Your task to perform on an android device: Open network settings Image 0: 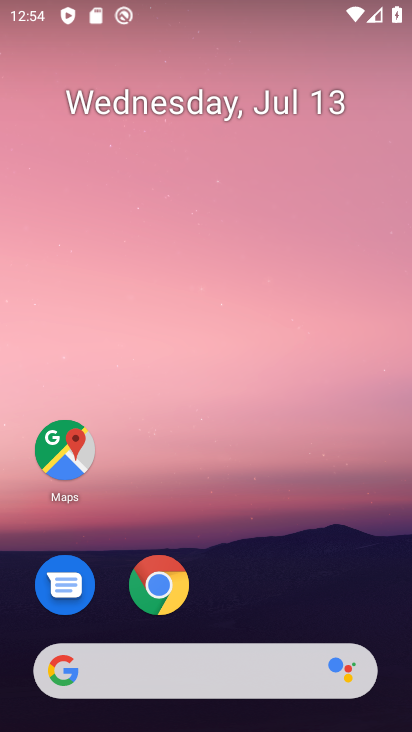
Step 0: drag from (164, 669) to (267, 39)
Your task to perform on an android device: Open network settings Image 1: 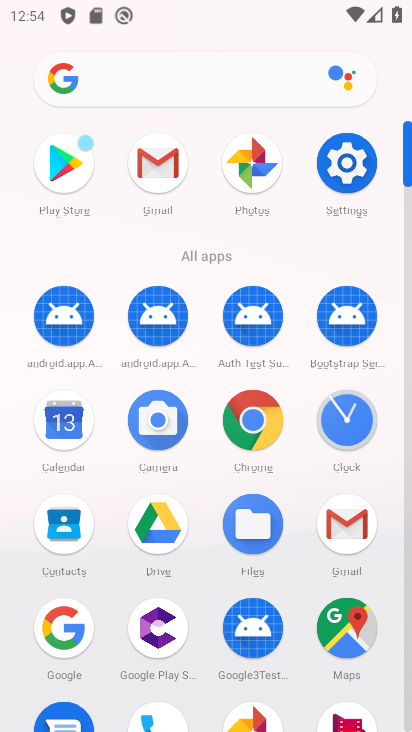
Step 1: click (337, 164)
Your task to perform on an android device: Open network settings Image 2: 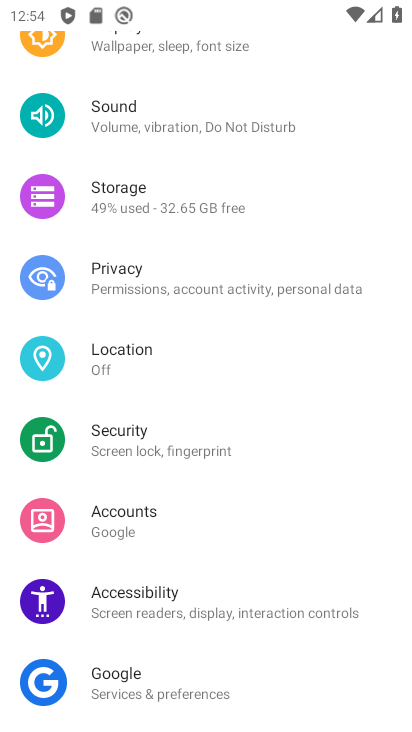
Step 2: drag from (309, 114) to (232, 555)
Your task to perform on an android device: Open network settings Image 3: 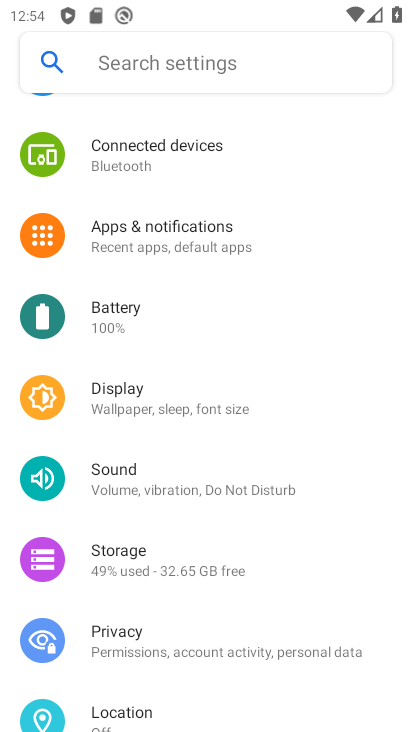
Step 3: drag from (267, 202) to (220, 555)
Your task to perform on an android device: Open network settings Image 4: 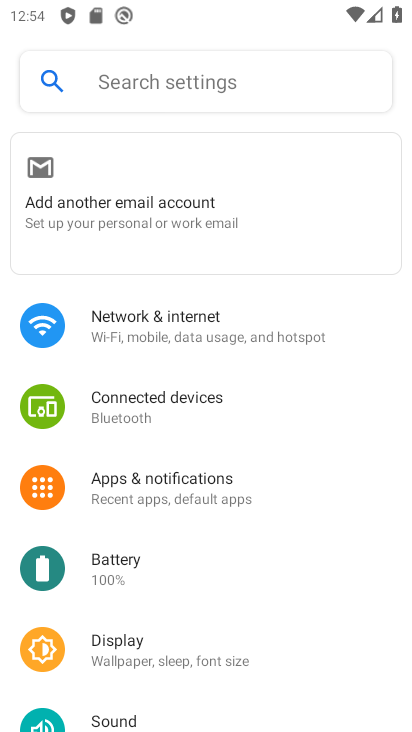
Step 4: click (166, 334)
Your task to perform on an android device: Open network settings Image 5: 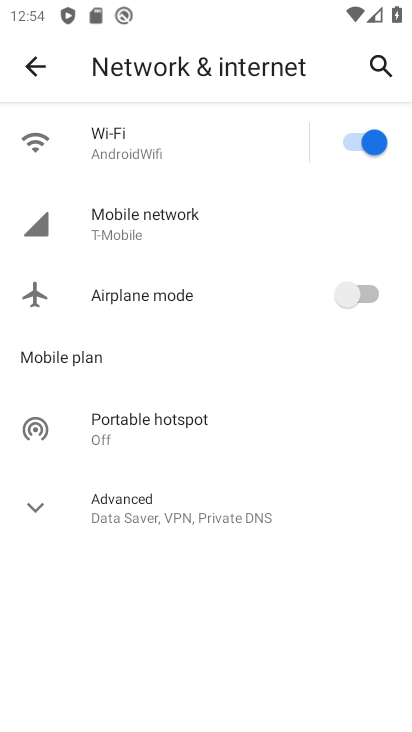
Step 5: click (122, 240)
Your task to perform on an android device: Open network settings Image 6: 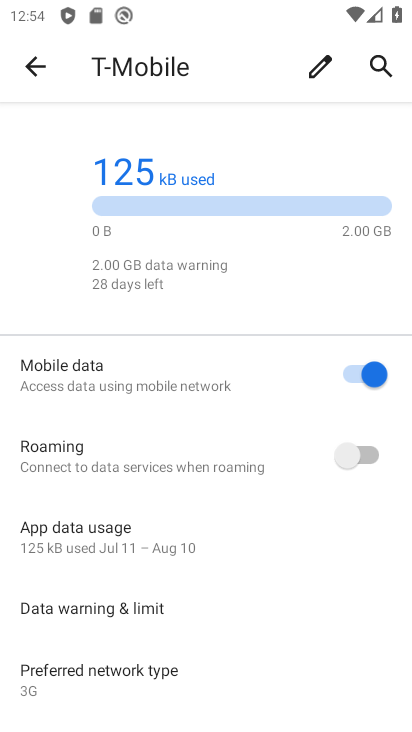
Step 6: task complete